Your task to perform on an android device: turn off wifi Image 0: 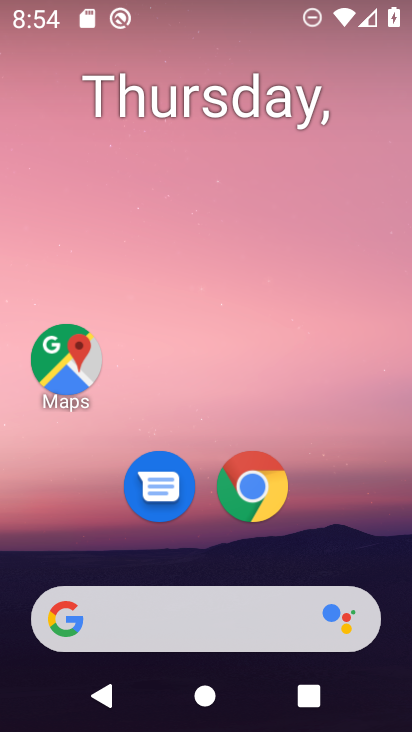
Step 0: drag from (122, 12) to (273, 597)
Your task to perform on an android device: turn off wifi Image 1: 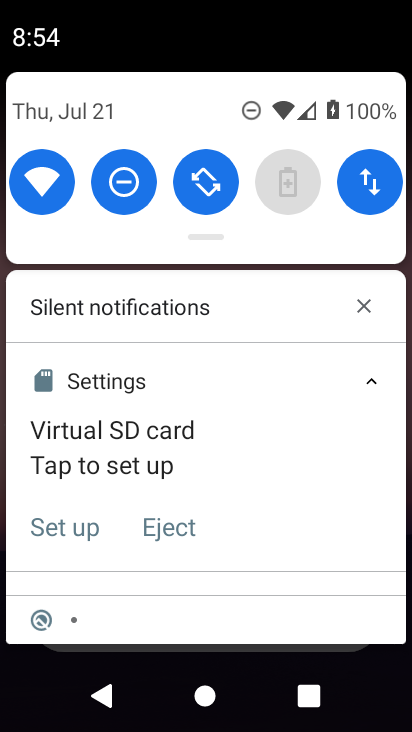
Step 1: click (49, 180)
Your task to perform on an android device: turn off wifi Image 2: 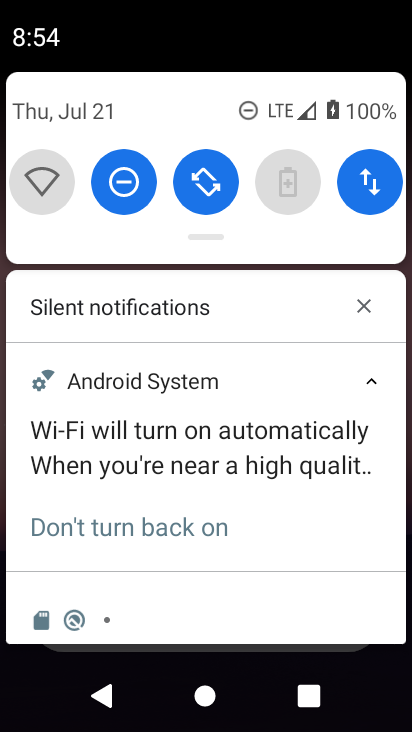
Step 2: task complete